Your task to perform on an android device: turn off sleep mode Image 0: 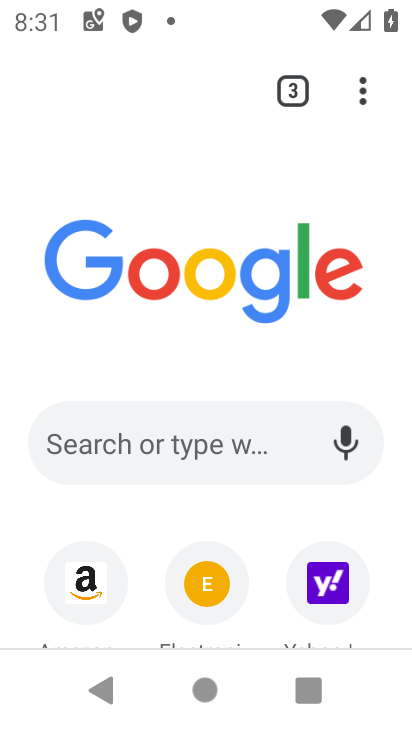
Step 0: press home button
Your task to perform on an android device: turn off sleep mode Image 1: 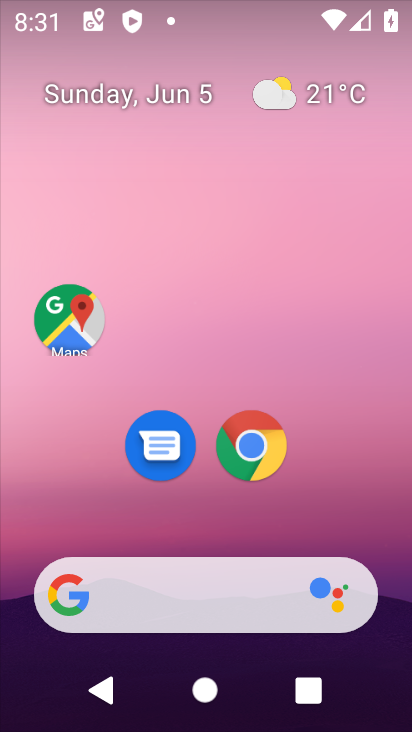
Step 1: drag from (334, 463) to (323, 116)
Your task to perform on an android device: turn off sleep mode Image 2: 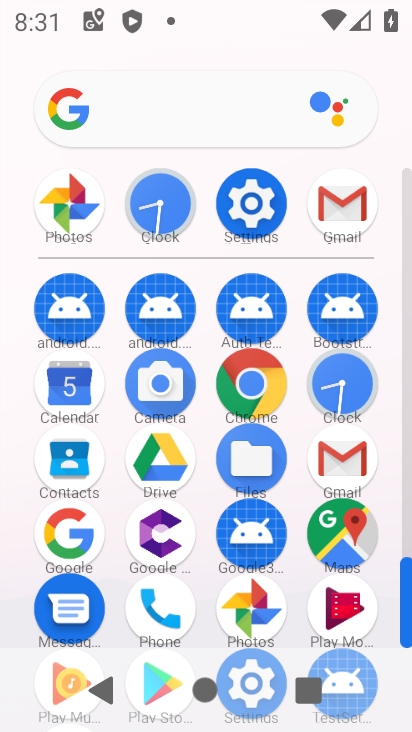
Step 2: click (244, 199)
Your task to perform on an android device: turn off sleep mode Image 3: 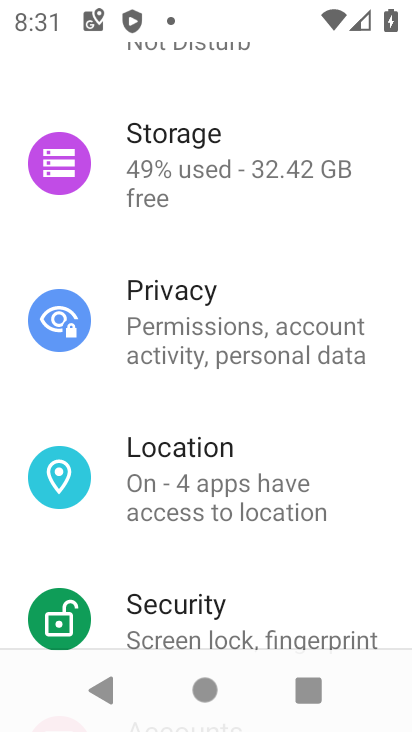
Step 3: drag from (258, 241) to (257, 532)
Your task to perform on an android device: turn off sleep mode Image 4: 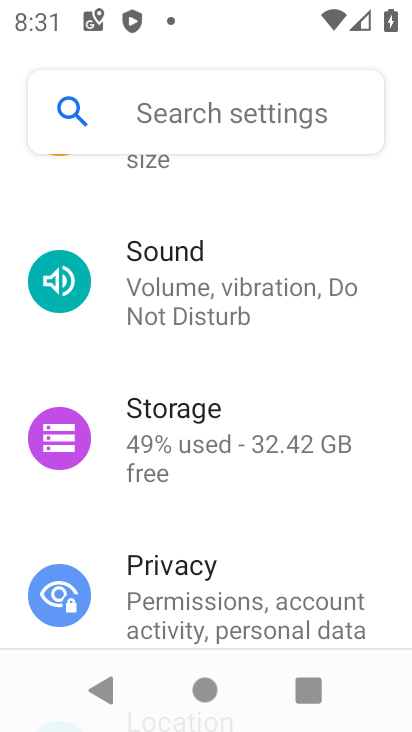
Step 4: drag from (270, 197) to (271, 536)
Your task to perform on an android device: turn off sleep mode Image 5: 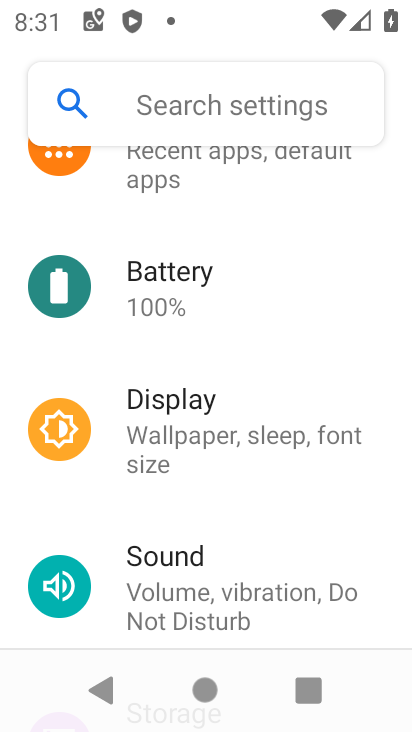
Step 5: click (234, 443)
Your task to perform on an android device: turn off sleep mode Image 6: 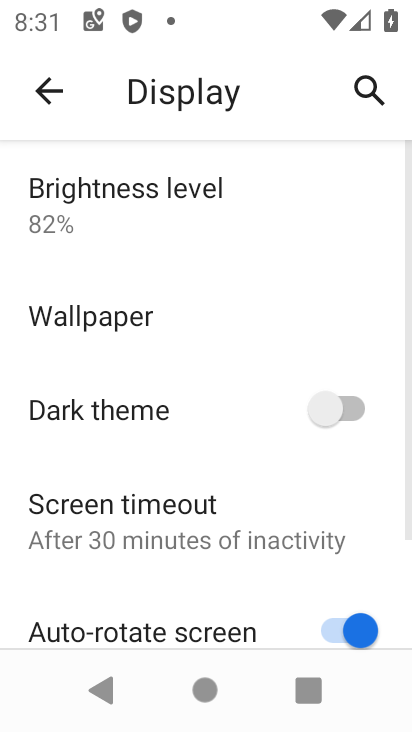
Step 6: drag from (239, 362) to (284, 65)
Your task to perform on an android device: turn off sleep mode Image 7: 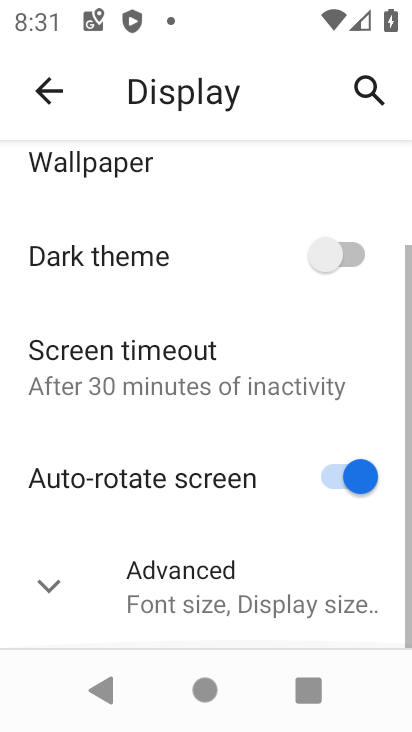
Step 7: click (71, 585)
Your task to perform on an android device: turn off sleep mode Image 8: 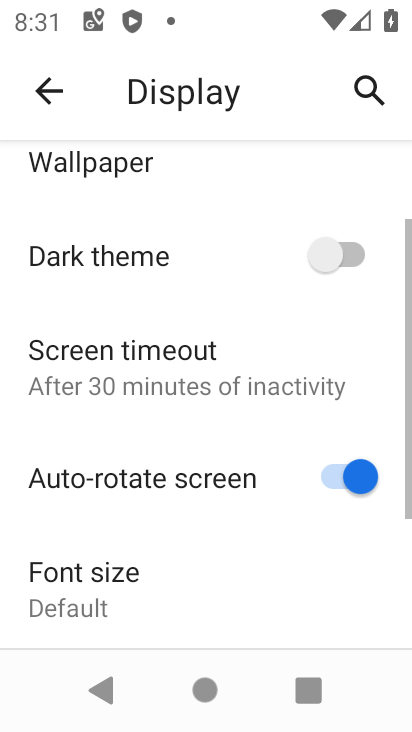
Step 8: task complete